Your task to perform on an android device: See recent photos Image 0: 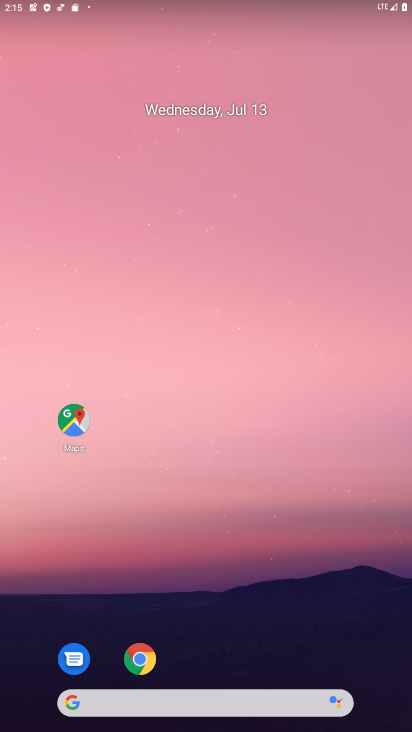
Step 0: drag from (388, 657) to (336, 225)
Your task to perform on an android device: See recent photos Image 1: 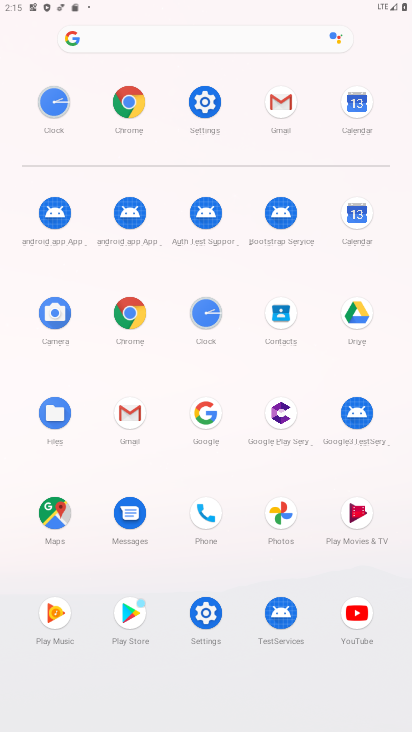
Step 1: click (282, 515)
Your task to perform on an android device: See recent photos Image 2: 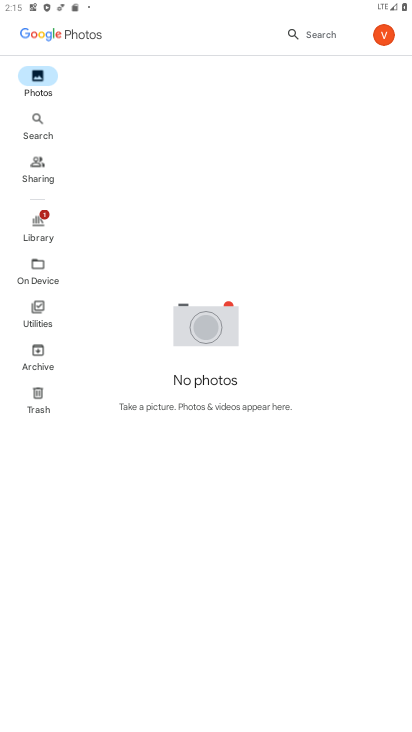
Step 2: task complete